Your task to perform on an android device: Go to network settings Image 0: 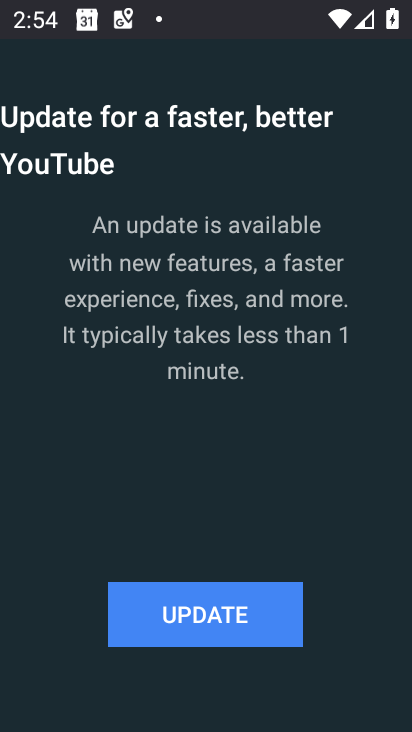
Step 0: press back button
Your task to perform on an android device: Go to network settings Image 1: 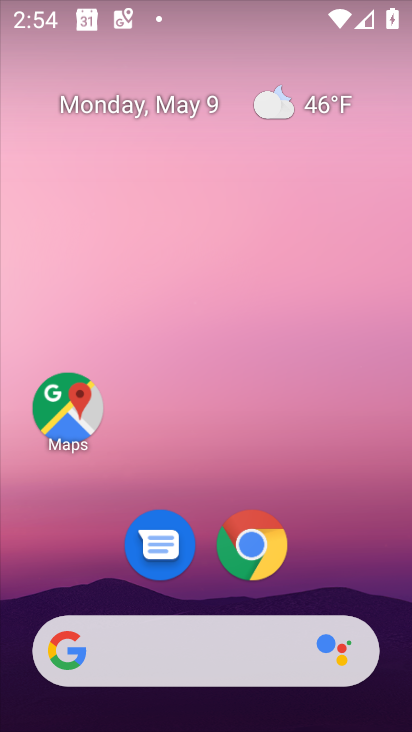
Step 1: drag from (200, 590) to (209, 173)
Your task to perform on an android device: Go to network settings Image 2: 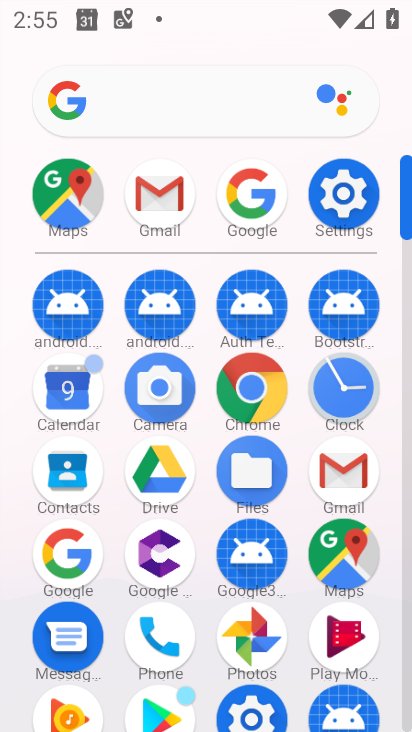
Step 2: click (369, 216)
Your task to perform on an android device: Go to network settings Image 3: 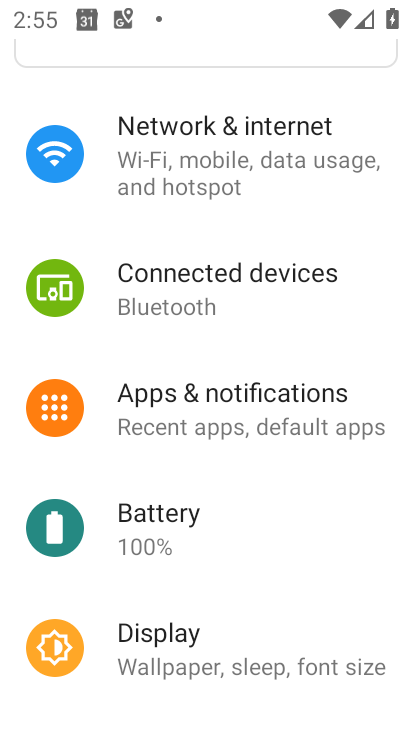
Step 3: drag from (214, 612) to (233, 365)
Your task to perform on an android device: Go to network settings Image 4: 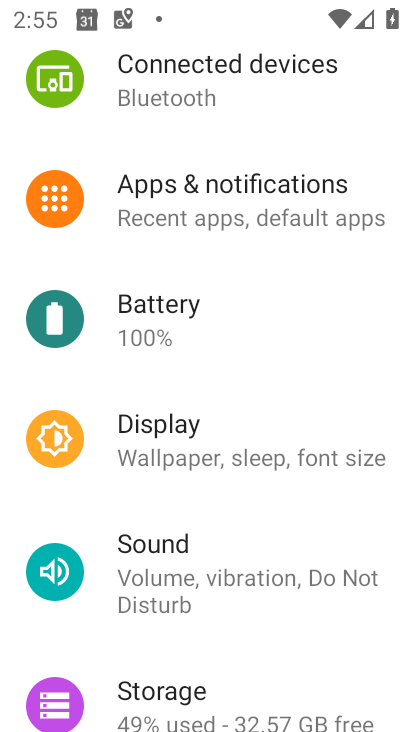
Step 4: drag from (229, 636) to (255, 474)
Your task to perform on an android device: Go to network settings Image 5: 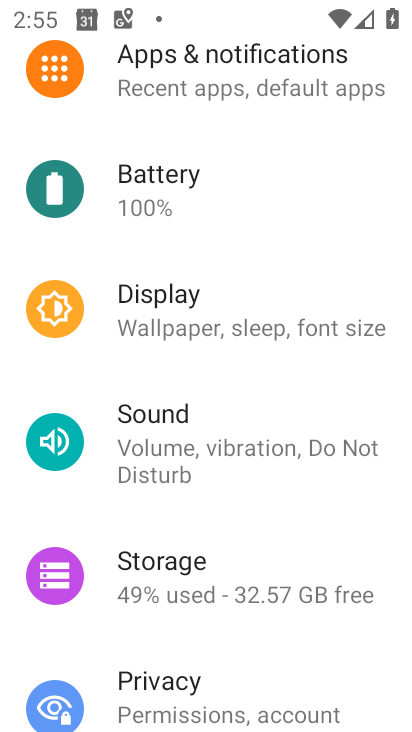
Step 5: drag from (334, 150) to (314, 595)
Your task to perform on an android device: Go to network settings Image 6: 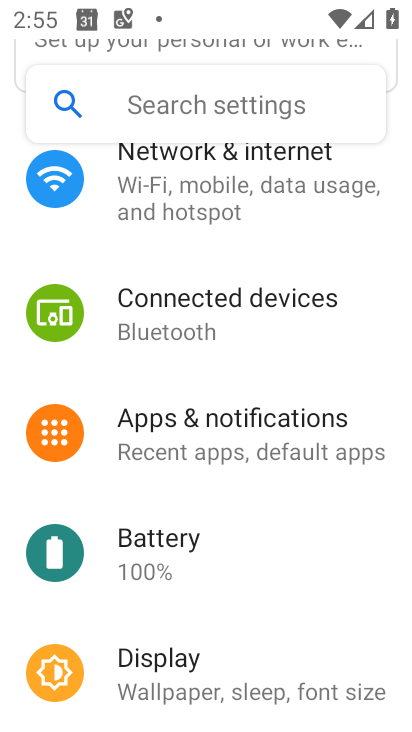
Step 6: click (248, 214)
Your task to perform on an android device: Go to network settings Image 7: 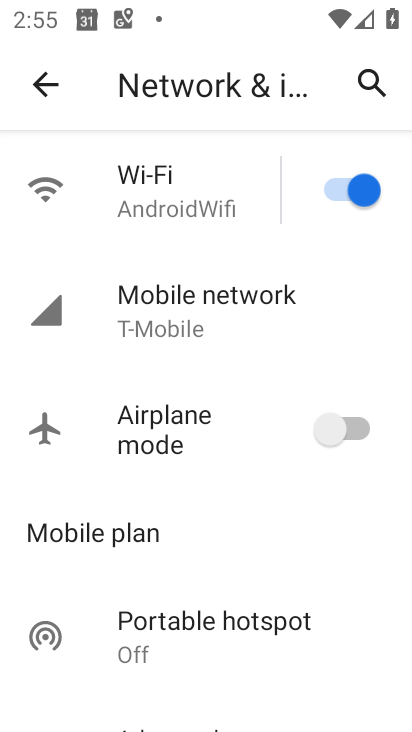
Step 7: task complete